Your task to perform on an android device: allow notifications from all sites in the chrome app Image 0: 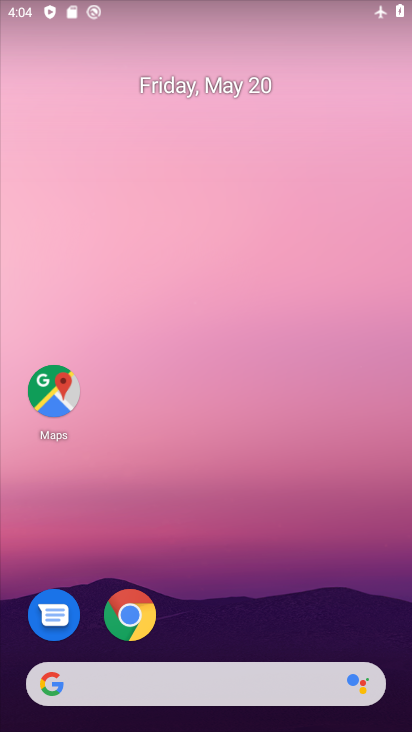
Step 0: drag from (242, 657) to (292, 209)
Your task to perform on an android device: allow notifications from all sites in the chrome app Image 1: 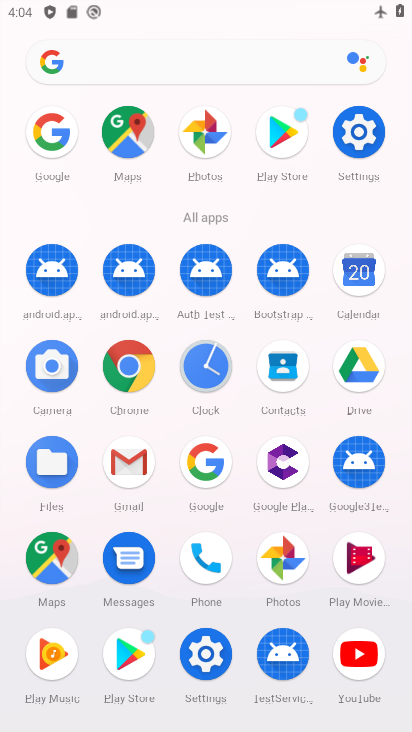
Step 1: click (134, 373)
Your task to perform on an android device: allow notifications from all sites in the chrome app Image 2: 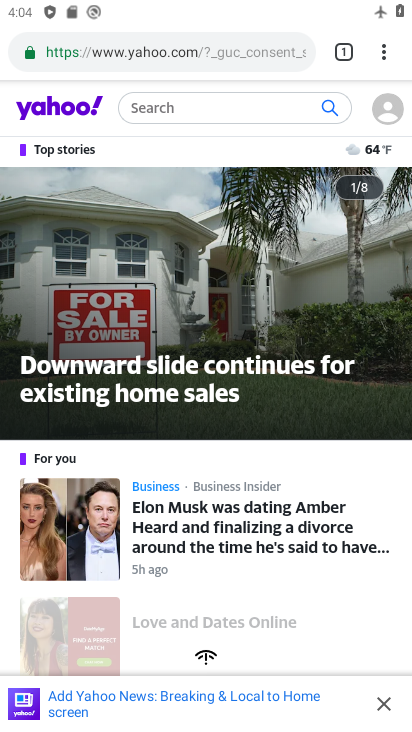
Step 2: click (385, 61)
Your task to perform on an android device: allow notifications from all sites in the chrome app Image 3: 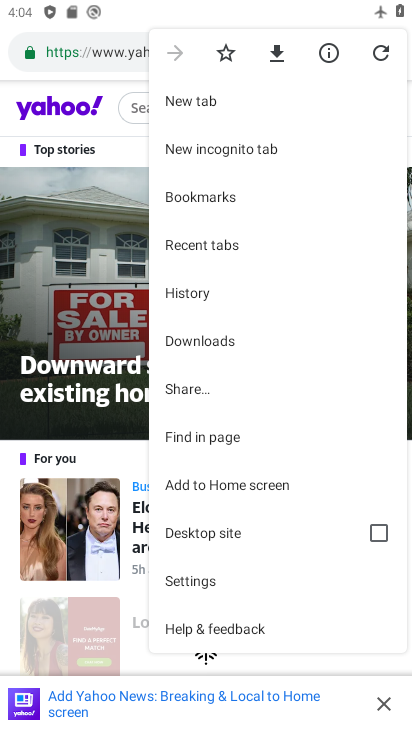
Step 3: click (205, 580)
Your task to perform on an android device: allow notifications from all sites in the chrome app Image 4: 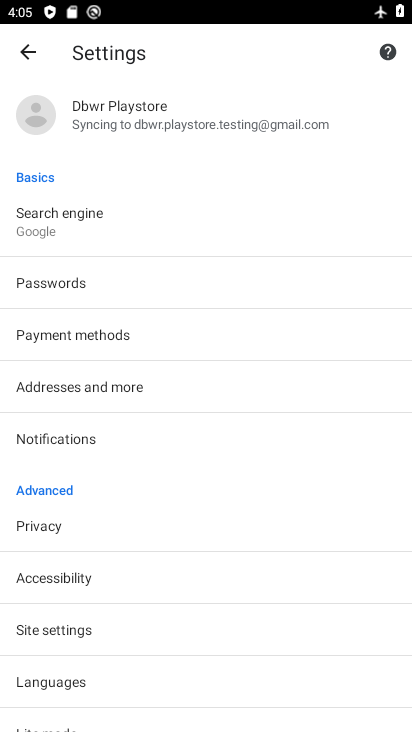
Step 4: drag from (191, 598) to (220, 366)
Your task to perform on an android device: allow notifications from all sites in the chrome app Image 5: 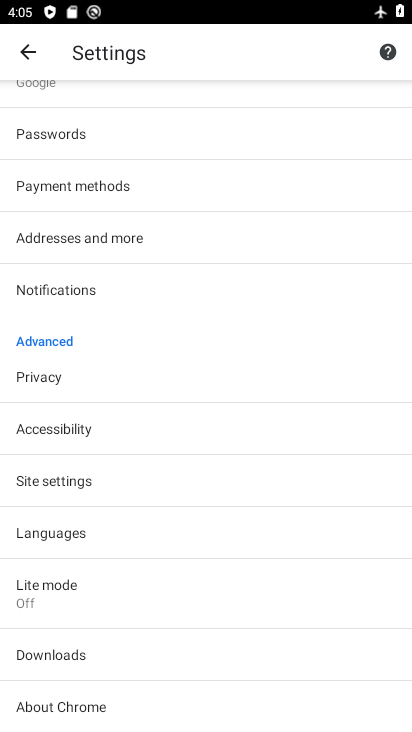
Step 5: click (86, 299)
Your task to perform on an android device: allow notifications from all sites in the chrome app Image 6: 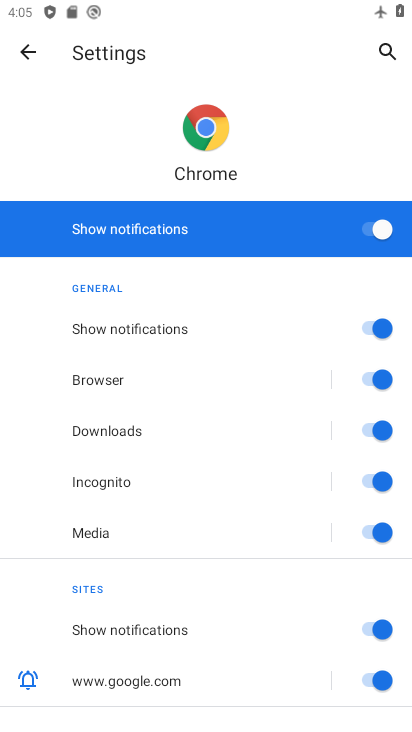
Step 6: task complete